Your task to perform on an android device: check android version Image 0: 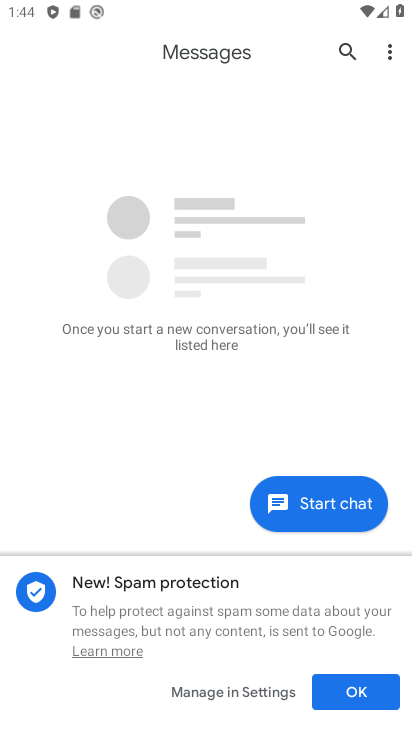
Step 0: press back button
Your task to perform on an android device: check android version Image 1: 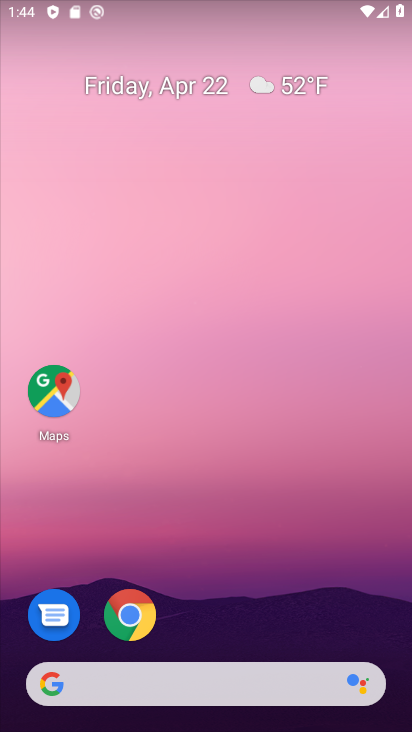
Step 1: drag from (172, 652) to (300, 50)
Your task to perform on an android device: check android version Image 2: 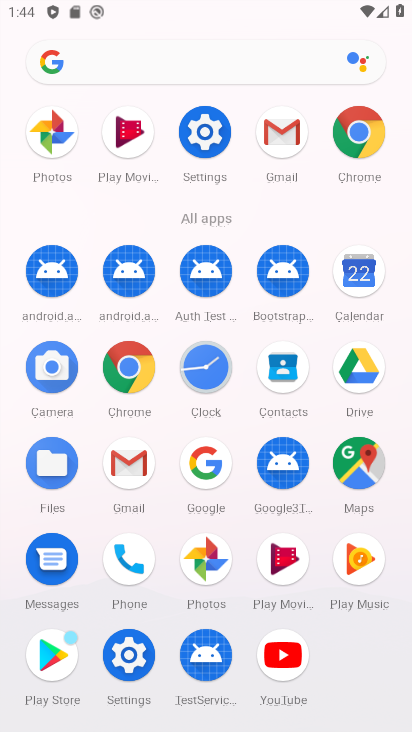
Step 2: click (125, 659)
Your task to perform on an android device: check android version Image 3: 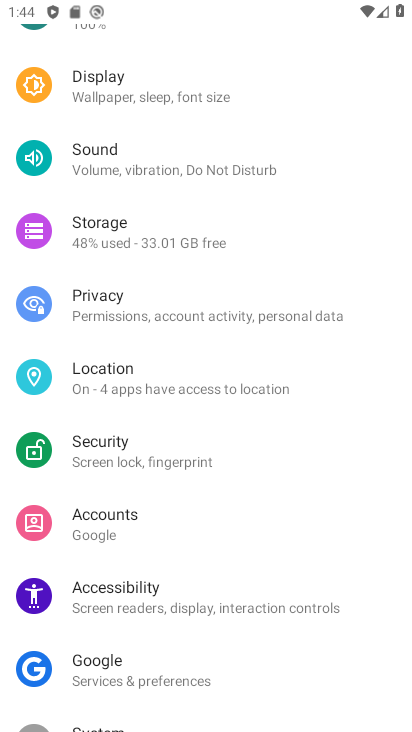
Step 3: drag from (146, 563) to (319, 107)
Your task to perform on an android device: check android version Image 4: 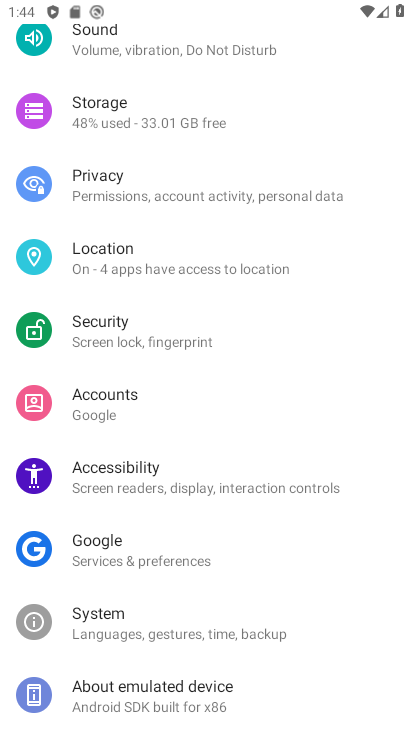
Step 4: drag from (200, 635) to (313, 132)
Your task to perform on an android device: check android version Image 5: 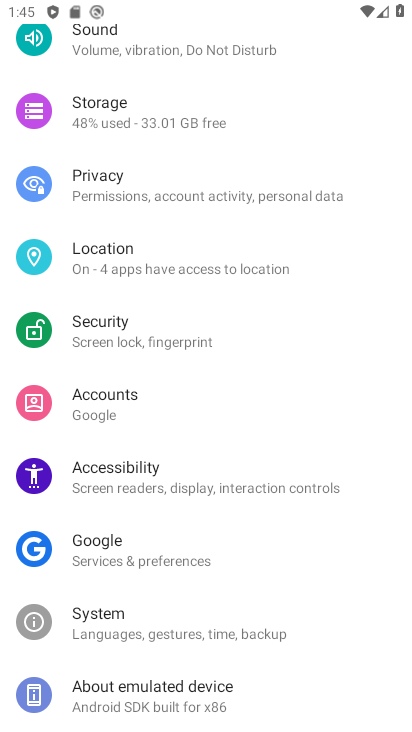
Step 5: click (192, 699)
Your task to perform on an android device: check android version Image 6: 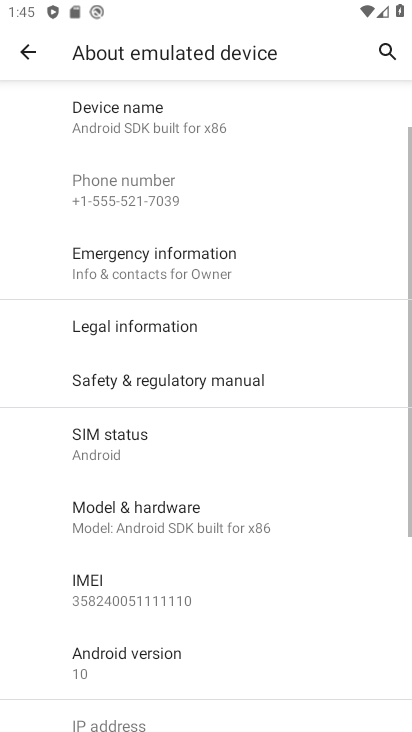
Step 6: click (179, 652)
Your task to perform on an android device: check android version Image 7: 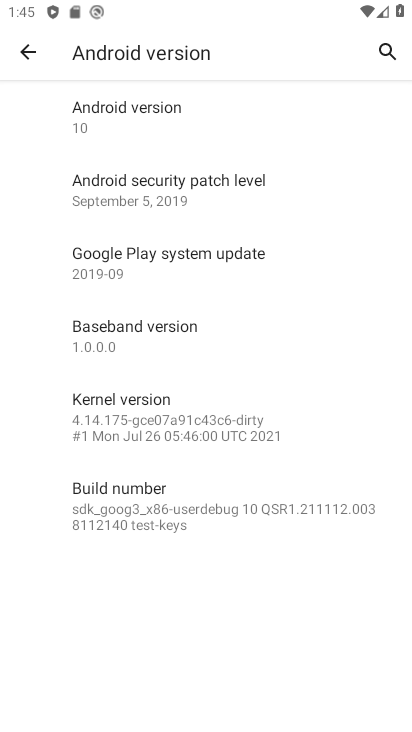
Step 7: task complete